Your task to perform on an android device: toggle sleep mode Image 0: 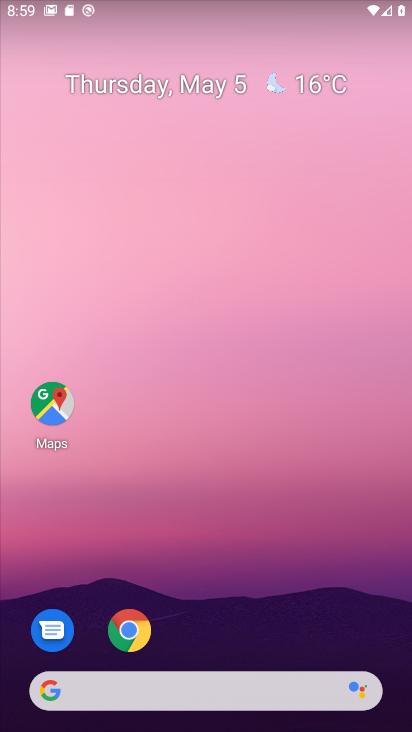
Step 0: drag from (301, 602) to (400, 46)
Your task to perform on an android device: toggle sleep mode Image 1: 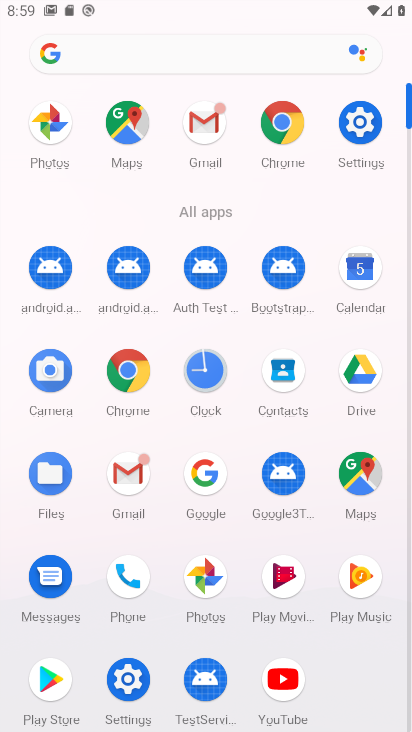
Step 1: click (359, 114)
Your task to perform on an android device: toggle sleep mode Image 2: 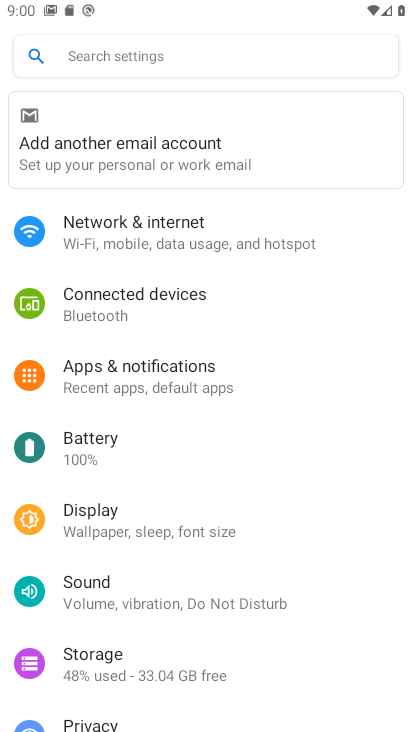
Step 2: drag from (228, 613) to (192, 221)
Your task to perform on an android device: toggle sleep mode Image 3: 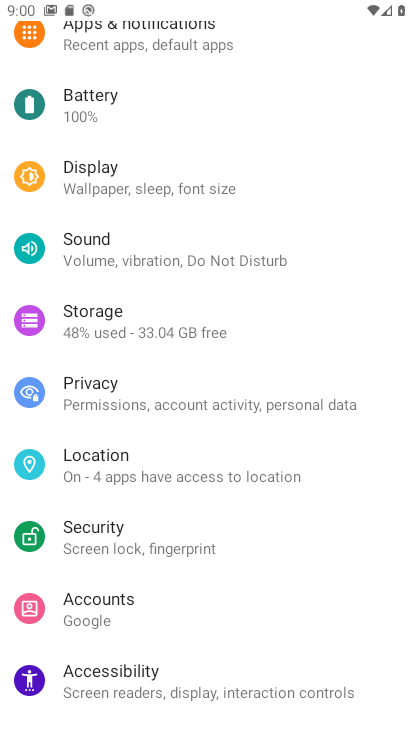
Step 3: drag from (228, 604) to (219, 292)
Your task to perform on an android device: toggle sleep mode Image 4: 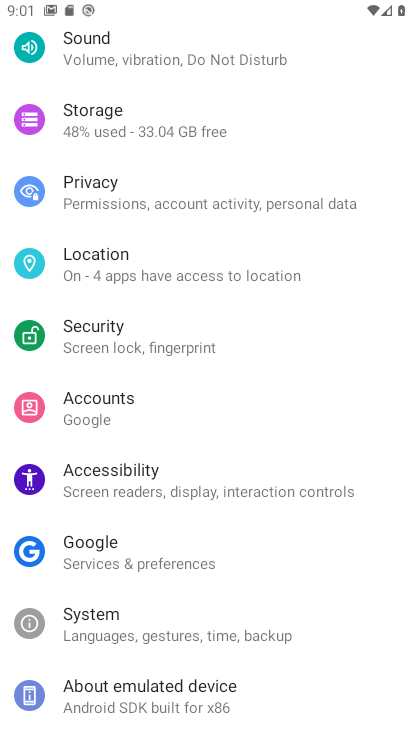
Step 4: drag from (175, 589) to (193, 127)
Your task to perform on an android device: toggle sleep mode Image 5: 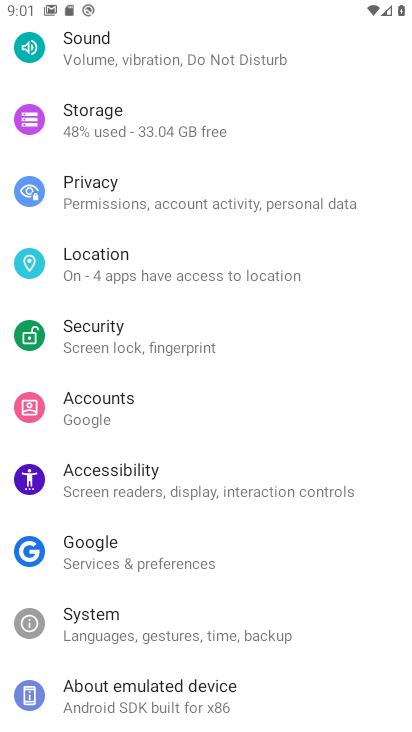
Step 5: drag from (197, 189) to (202, 647)
Your task to perform on an android device: toggle sleep mode Image 6: 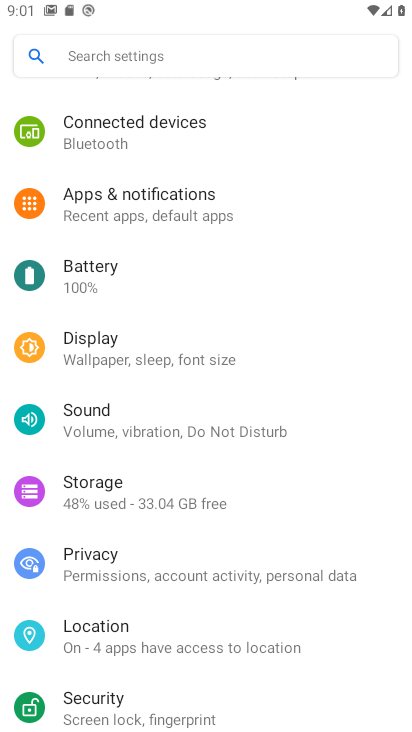
Step 6: drag from (197, 198) to (268, 570)
Your task to perform on an android device: toggle sleep mode Image 7: 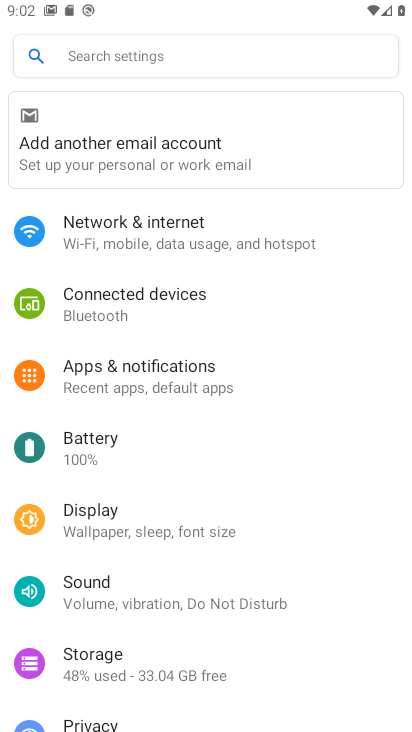
Step 7: drag from (259, 635) to (228, 159)
Your task to perform on an android device: toggle sleep mode Image 8: 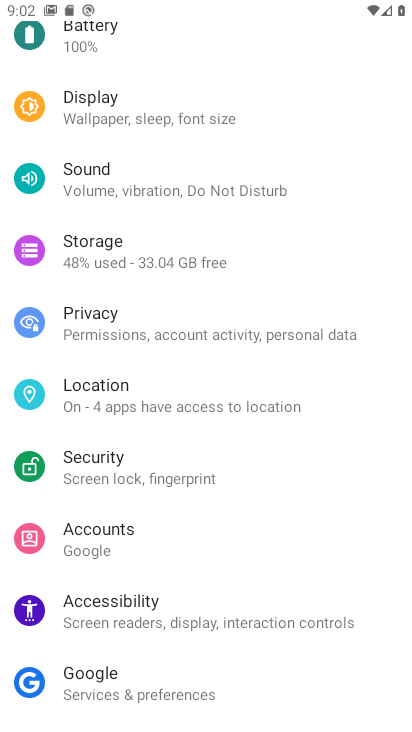
Step 8: drag from (251, 191) to (275, 710)
Your task to perform on an android device: toggle sleep mode Image 9: 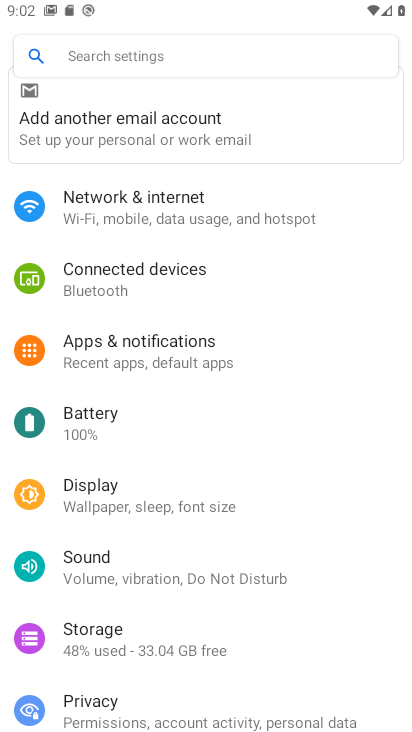
Step 9: drag from (207, 631) to (204, 330)
Your task to perform on an android device: toggle sleep mode Image 10: 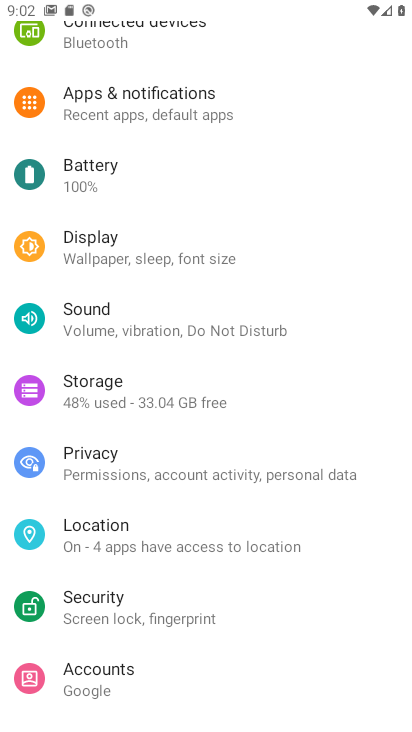
Step 10: click (118, 241)
Your task to perform on an android device: toggle sleep mode Image 11: 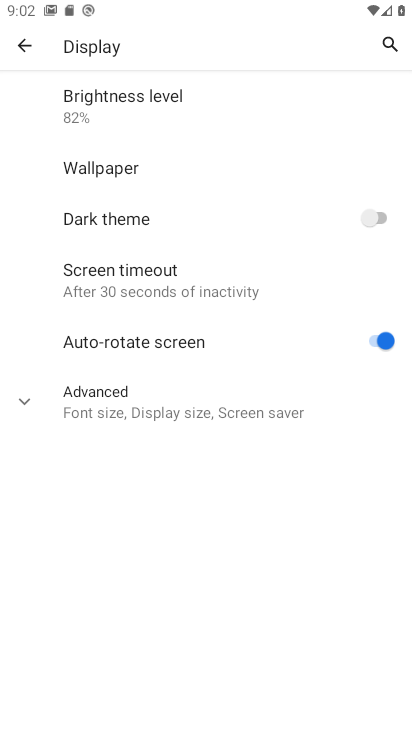
Step 11: click (96, 280)
Your task to perform on an android device: toggle sleep mode Image 12: 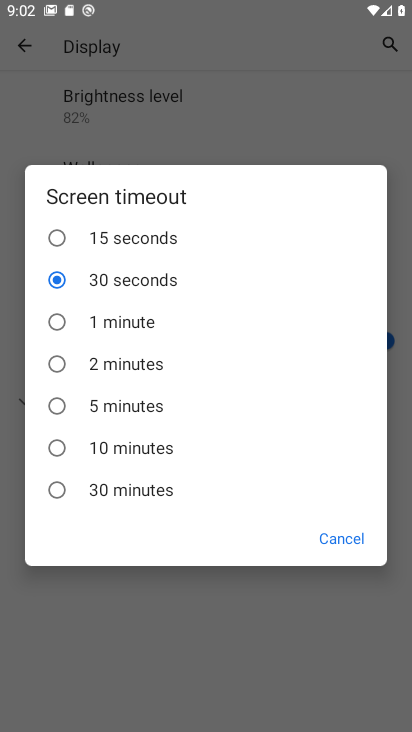
Step 12: click (88, 362)
Your task to perform on an android device: toggle sleep mode Image 13: 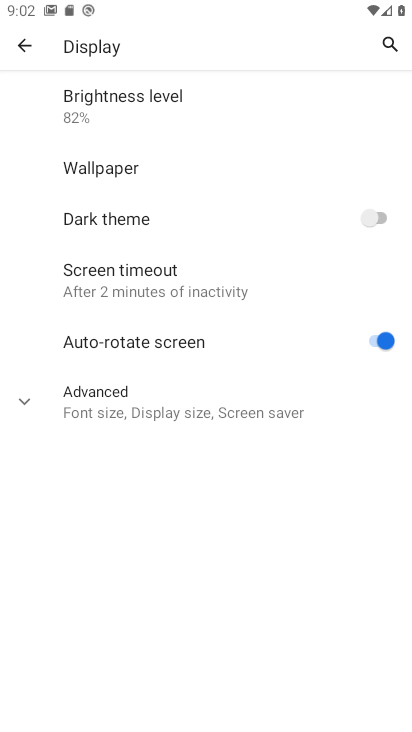
Step 13: task complete